Your task to perform on an android device: turn off javascript in the chrome app Image 0: 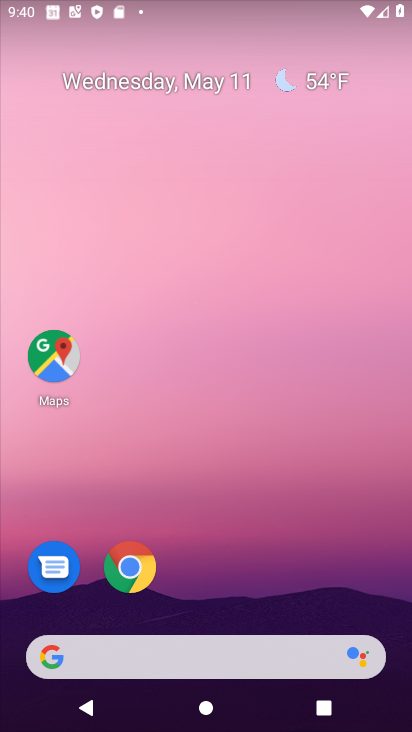
Step 0: click (288, 251)
Your task to perform on an android device: turn off javascript in the chrome app Image 1: 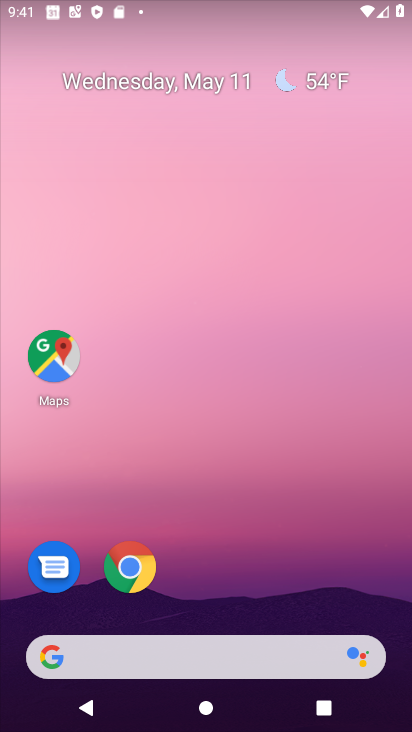
Step 1: drag from (218, 582) to (277, 0)
Your task to perform on an android device: turn off javascript in the chrome app Image 2: 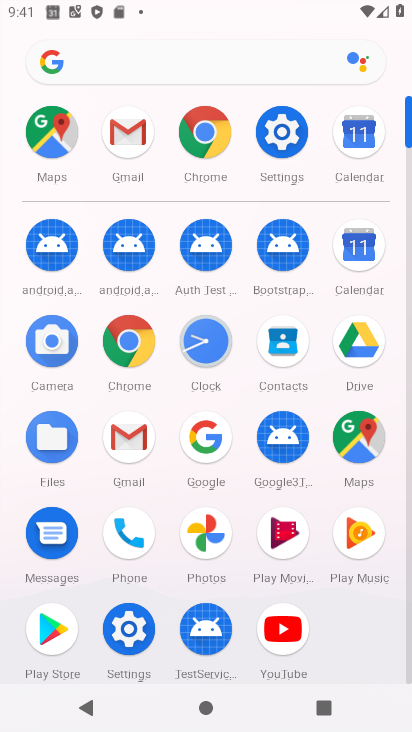
Step 2: click (118, 349)
Your task to perform on an android device: turn off javascript in the chrome app Image 3: 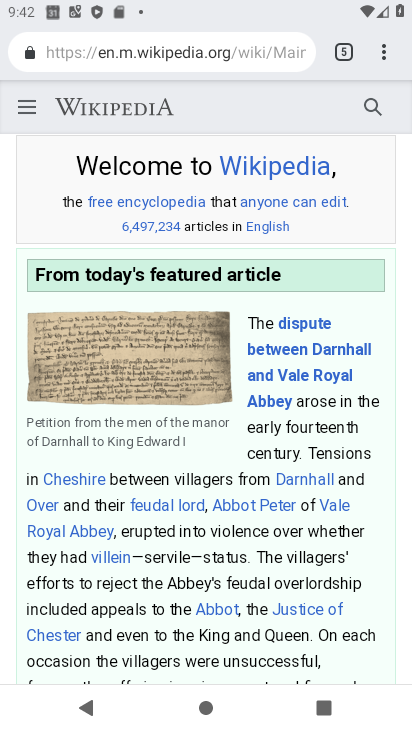
Step 3: click (389, 50)
Your task to perform on an android device: turn off javascript in the chrome app Image 4: 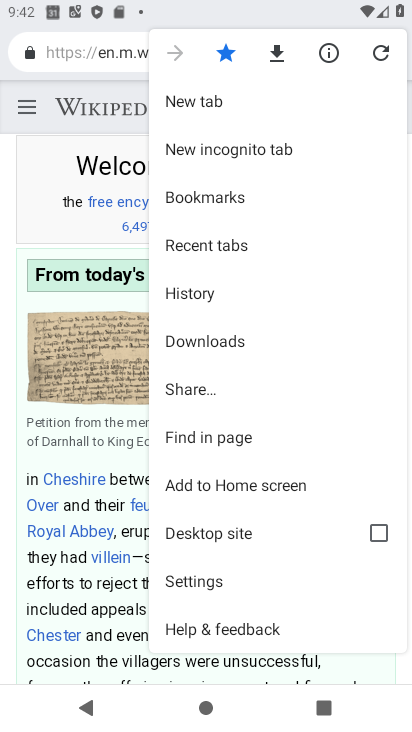
Step 4: click (219, 587)
Your task to perform on an android device: turn off javascript in the chrome app Image 5: 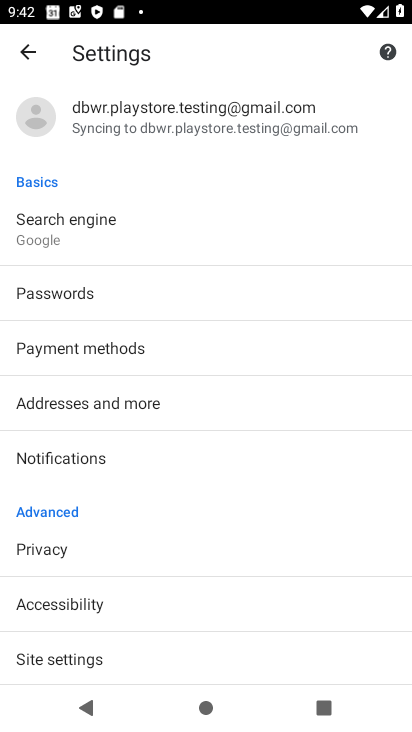
Step 5: drag from (92, 553) to (111, 266)
Your task to perform on an android device: turn off javascript in the chrome app Image 6: 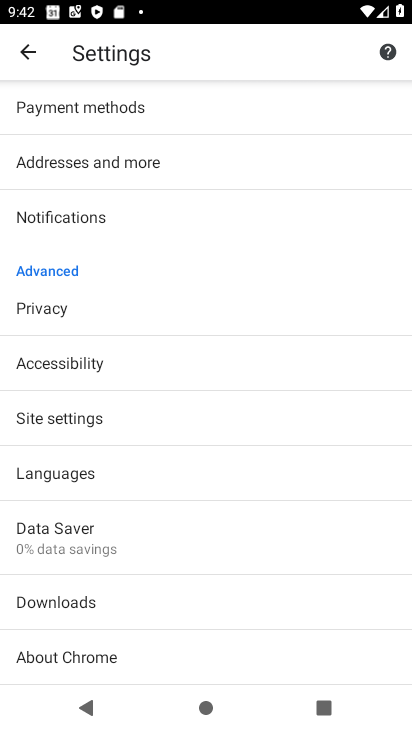
Step 6: click (78, 412)
Your task to perform on an android device: turn off javascript in the chrome app Image 7: 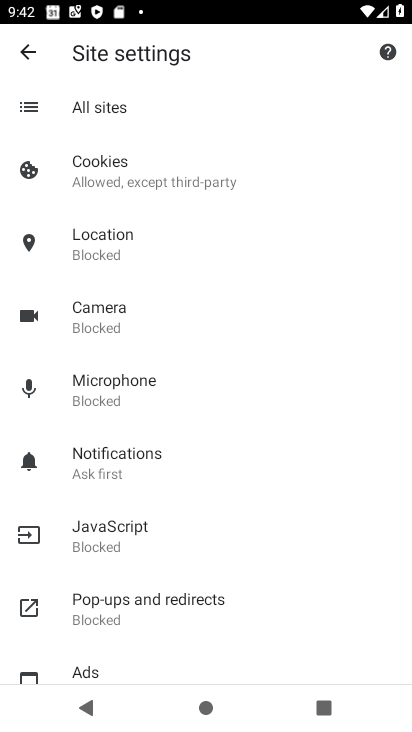
Step 7: click (145, 516)
Your task to perform on an android device: turn off javascript in the chrome app Image 8: 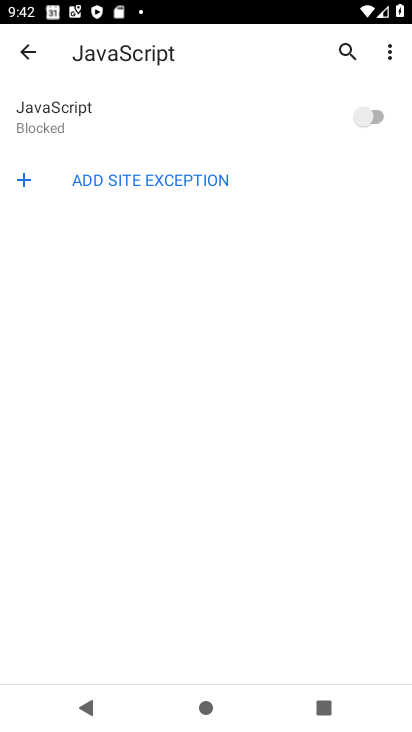
Step 8: task complete